Your task to perform on an android device: check data usage Image 0: 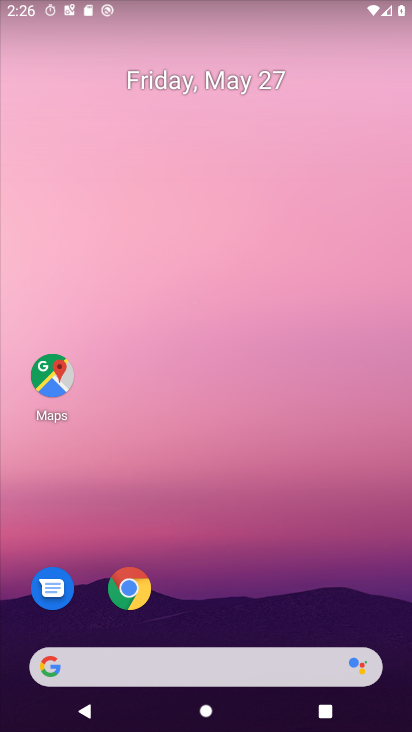
Step 0: drag from (287, 624) to (277, 31)
Your task to perform on an android device: check data usage Image 1: 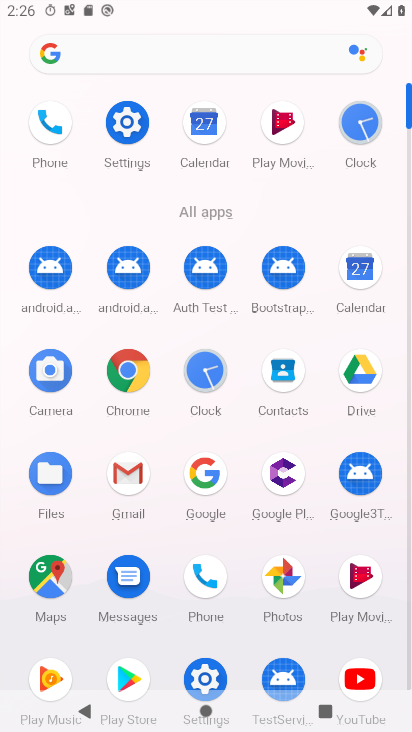
Step 1: click (115, 130)
Your task to perform on an android device: check data usage Image 2: 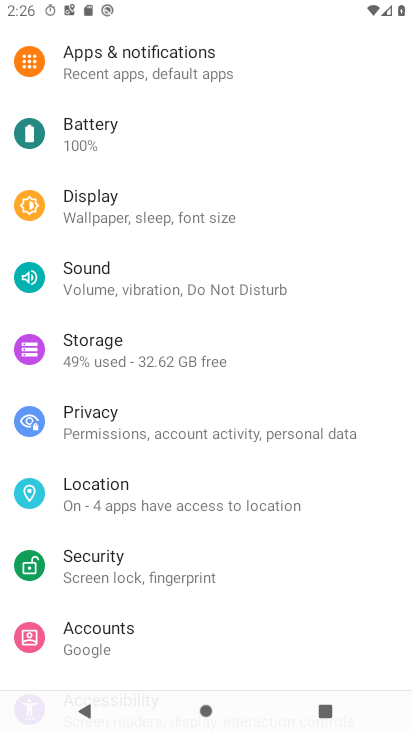
Step 2: drag from (245, 259) to (275, 480)
Your task to perform on an android device: check data usage Image 3: 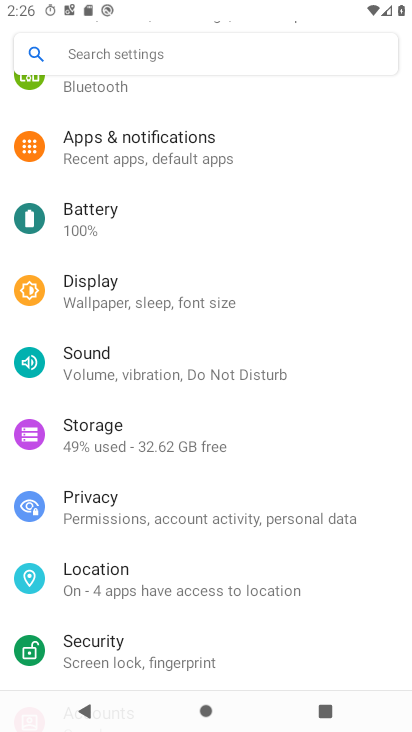
Step 3: drag from (201, 189) to (236, 585)
Your task to perform on an android device: check data usage Image 4: 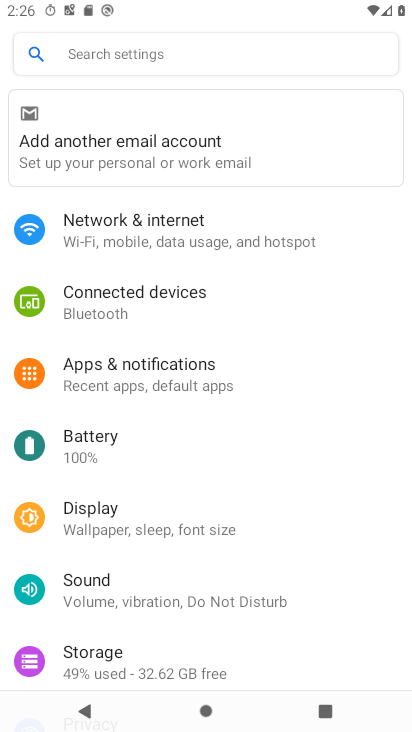
Step 4: click (151, 243)
Your task to perform on an android device: check data usage Image 5: 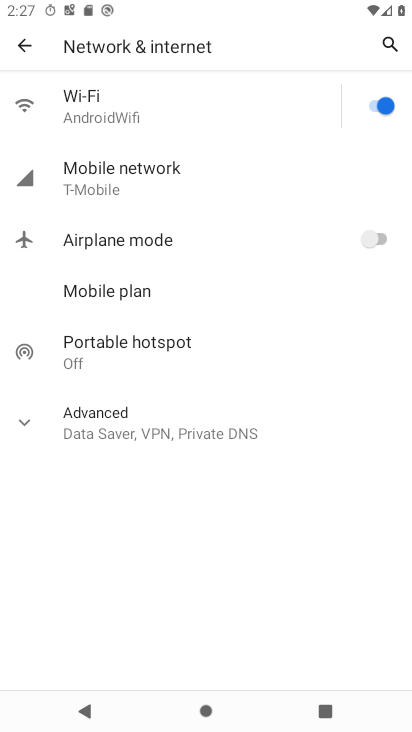
Step 5: click (147, 188)
Your task to perform on an android device: check data usage Image 6: 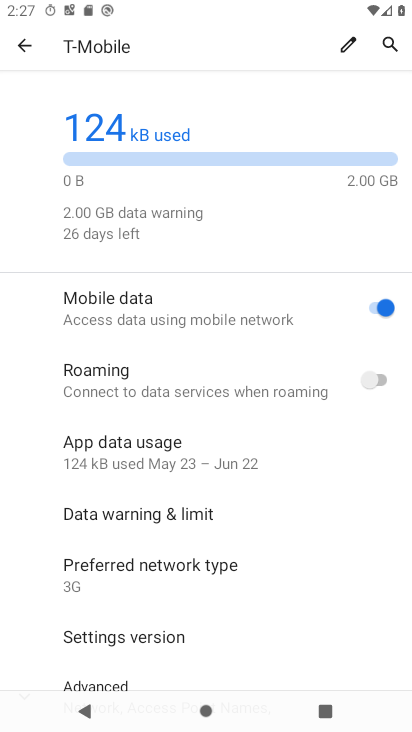
Step 6: click (161, 452)
Your task to perform on an android device: check data usage Image 7: 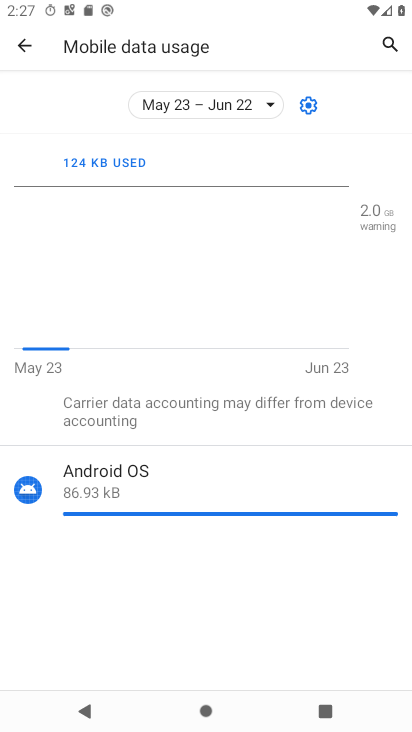
Step 7: task complete